Your task to perform on an android device: open app "Life360: Find Family & Friends" (install if not already installed) Image 0: 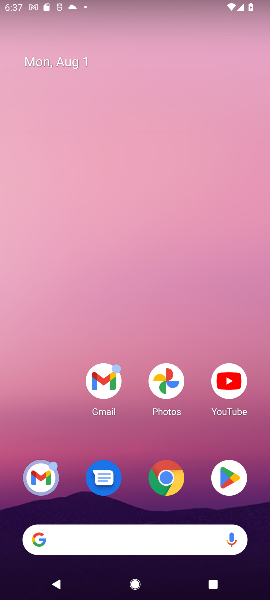
Step 0: press home button
Your task to perform on an android device: open app "Life360: Find Family & Friends" (install if not already installed) Image 1: 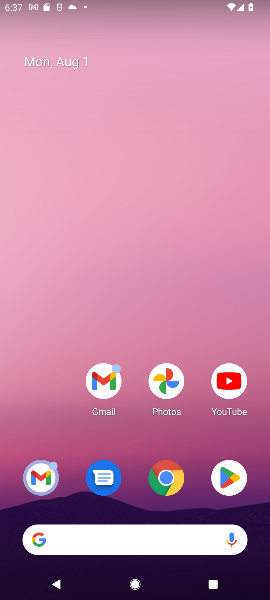
Step 1: click (231, 484)
Your task to perform on an android device: open app "Life360: Find Family & Friends" (install if not already installed) Image 2: 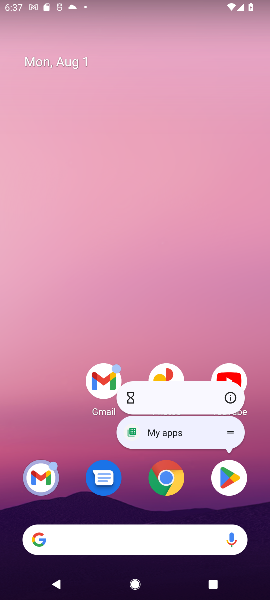
Step 2: click (226, 488)
Your task to perform on an android device: open app "Life360: Find Family & Friends" (install if not already installed) Image 3: 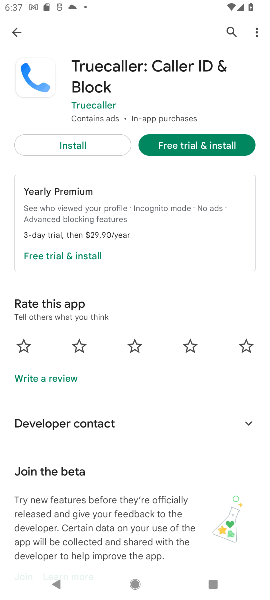
Step 3: click (225, 33)
Your task to perform on an android device: open app "Life360: Find Family & Friends" (install if not already installed) Image 4: 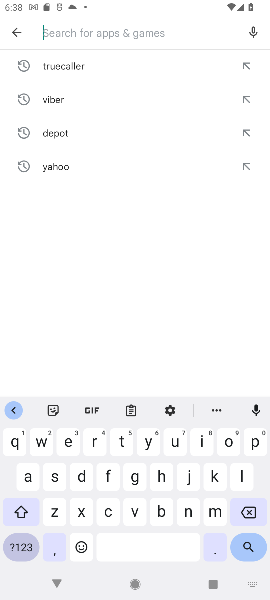
Step 4: click (243, 475)
Your task to perform on an android device: open app "Life360: Find Family & Friends" (install if not already installed) Image 5: 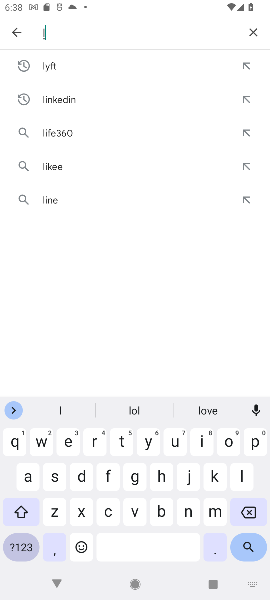
Step 5: click (199, 443)
Your task to perform on an android device: open app "Life360: Find Family & Friends" (install if not already installed) Image 6: 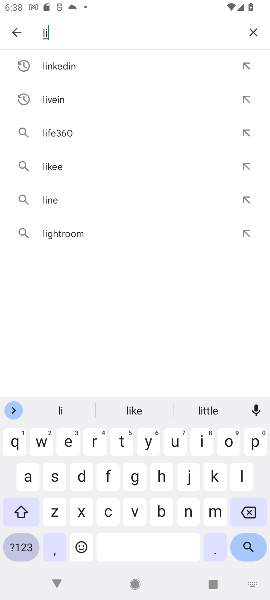
Step 6: click (101, 475)
Your task to perform on an android device: open app "Life360: Find Family & Friends" (install if not already installed) Image 7: 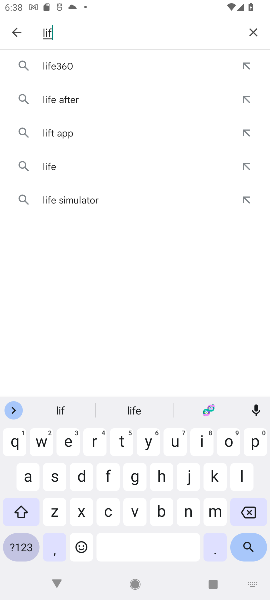
Step 7: click (67, 447)
Your task to perform on an android device: open app "Life360: Find Family & Friends" (install if not already installed) Image 8: 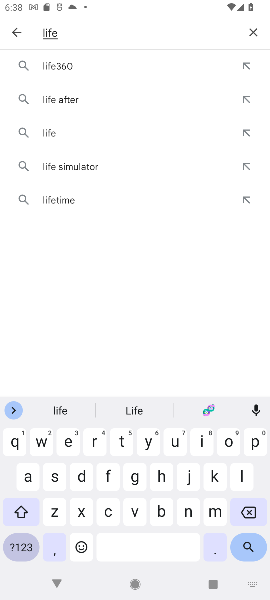
Step 8: click (73, 64)
Your task to perform on an android device: open app "Life360: Find Family & Friends" (install if not already installed) Image 9: 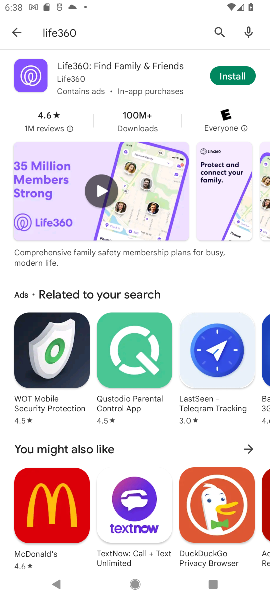
Step 9: click (227, 84)
Your task to perform on an android device: open app "Life360: Find Family & Friends" (install if not already installed) Image 10: 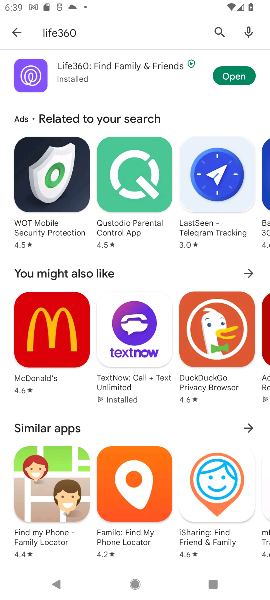
Step 10: click (222, 75)
Your task to perform on an android device: open app "Life360: Find Family & Friends" (install if not already installed) Image 11: 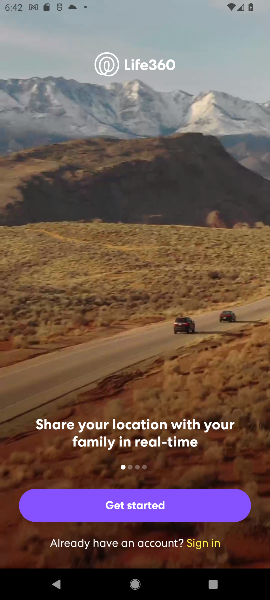
Step 11: task complete